Your task to perform on an android device: turn off picture-in-picture Image 0: 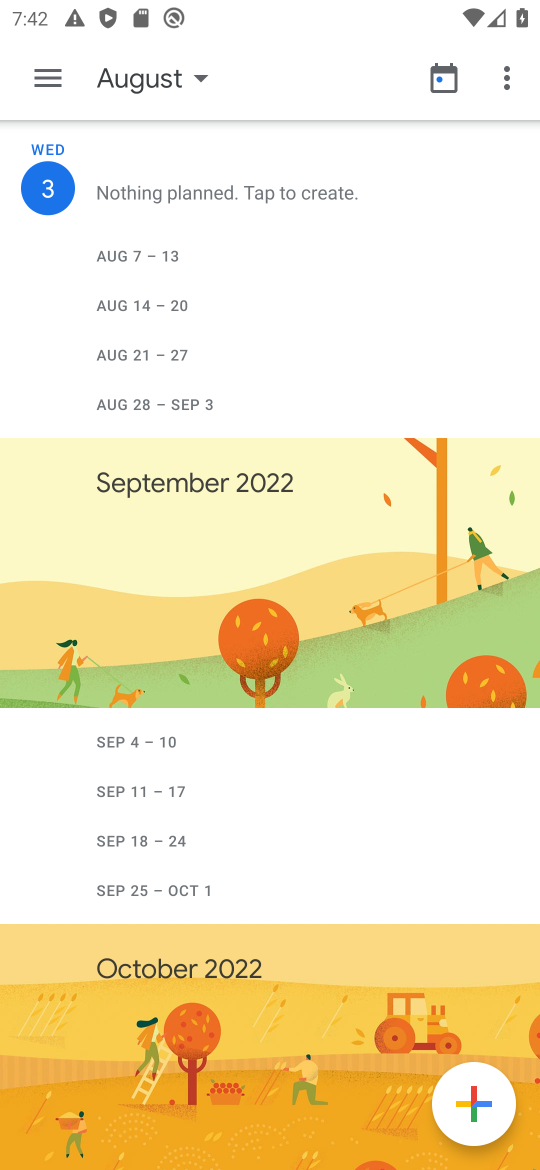
Step 0: press home button
Your task to perform on an android device: turn off picture-in-picture Image 1: 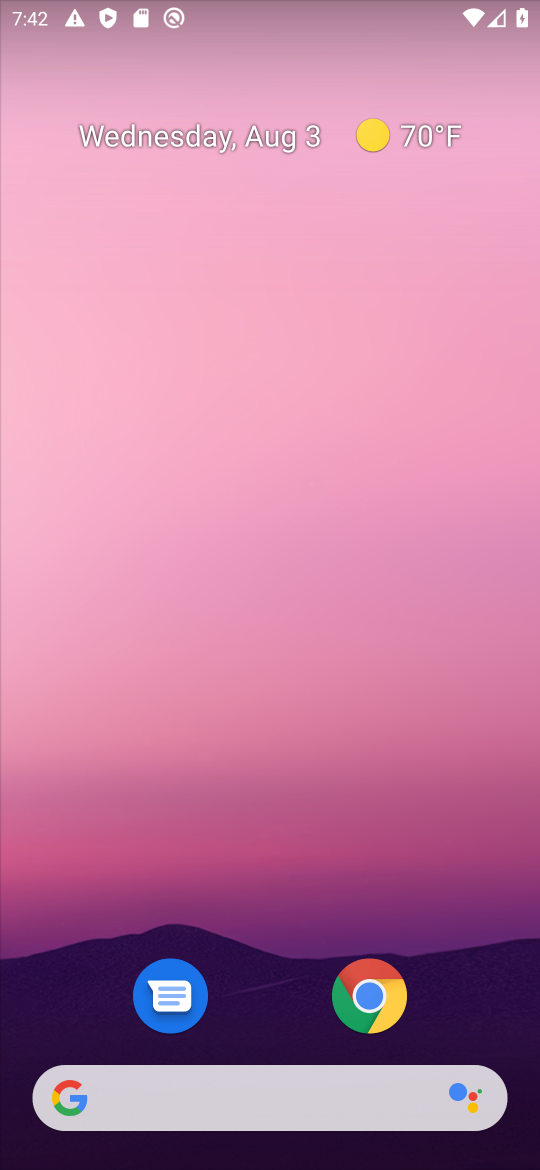
Step 1: click (378, 999)
Your task to perform on an android device: turn off picture-in-picture Image 2: 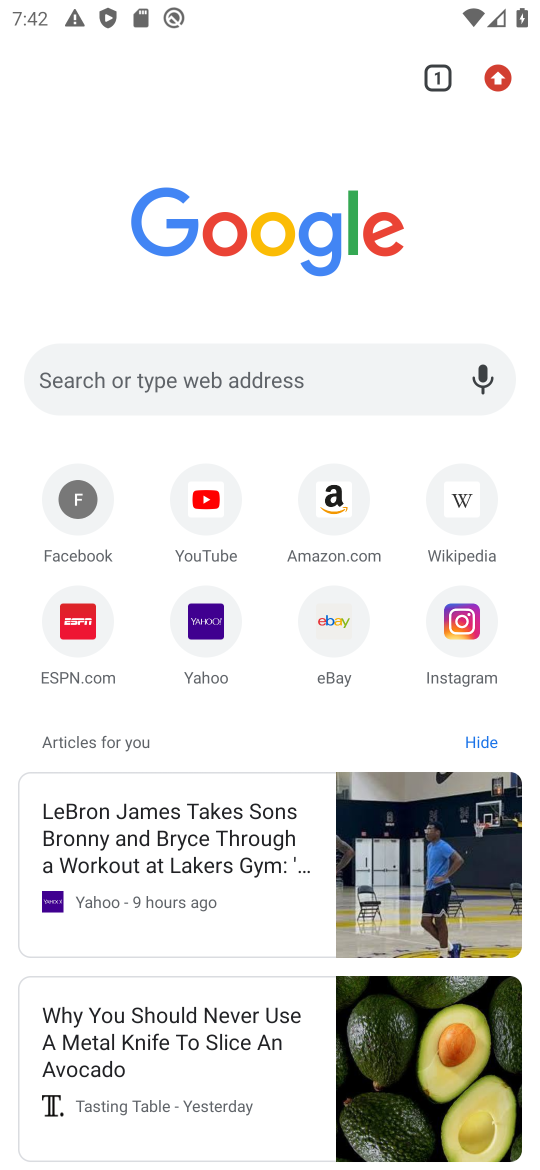
Step 2: press back button
Your task to perform on an android device: turn off picture-in-picture Image 3: 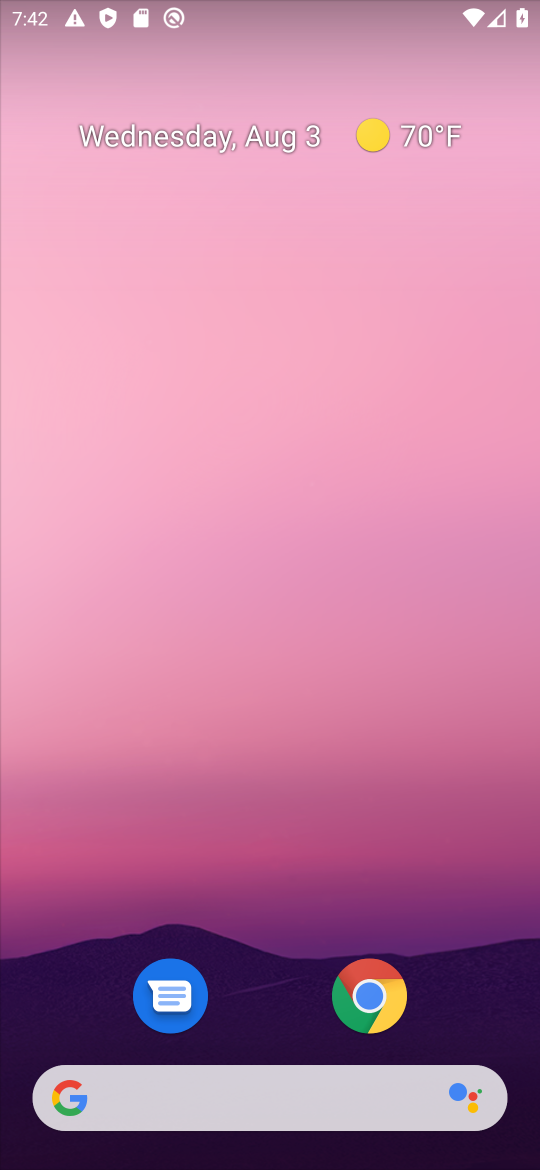
Step 3: click (369, 985)
Your task to perform on an android device: turn off picture-in-picture Image 4: 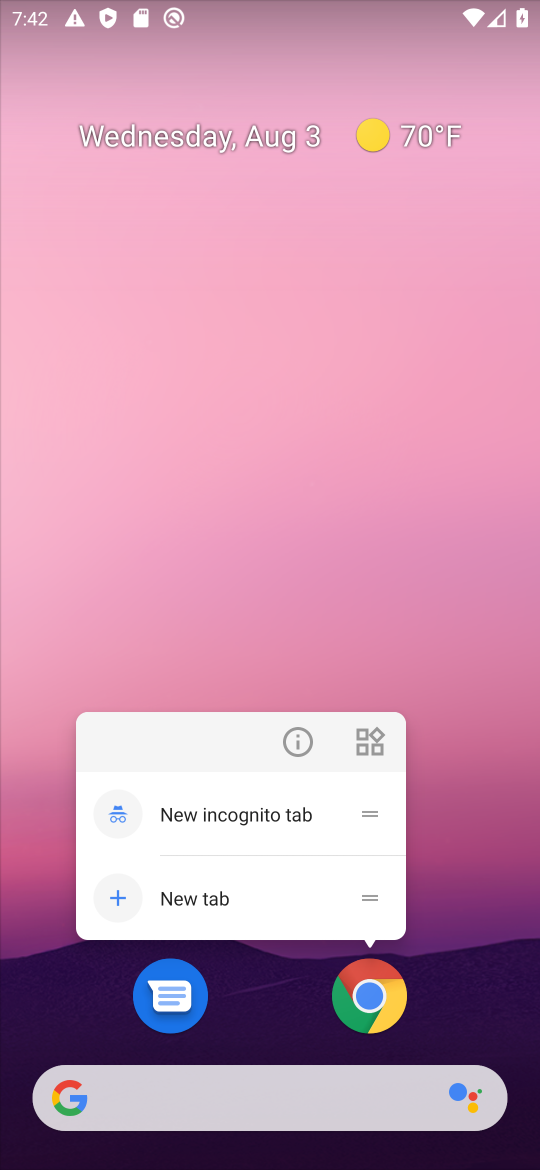
Step 4: click (295, 739)
Your task to perform on an android device: turn off picture-in-picture Image 5: 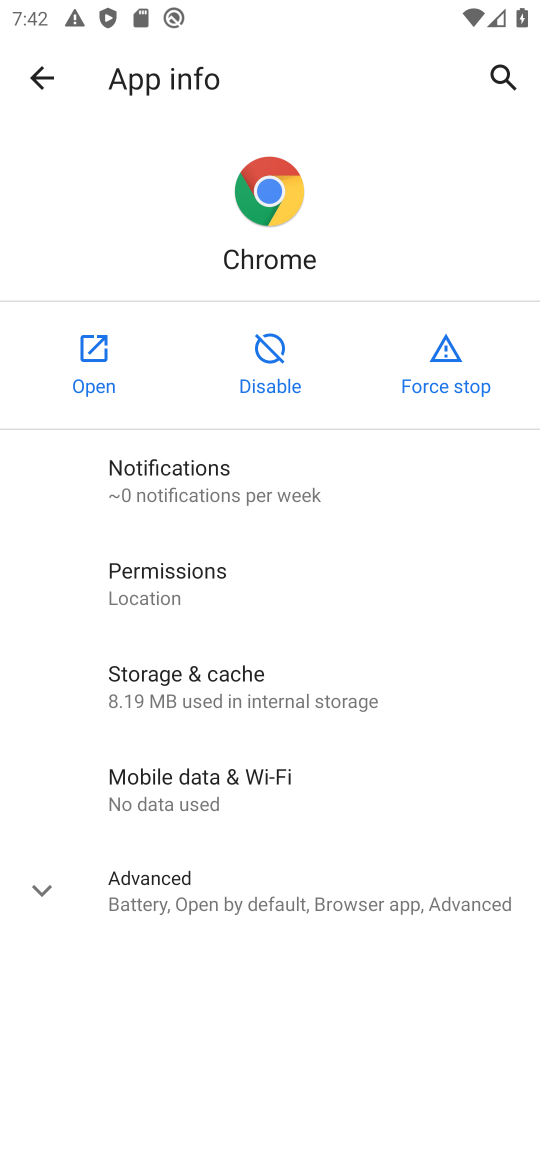
Step 5: click (43, 878)
Your task to perform on an android device: turn off picture-in-picture Image 6: 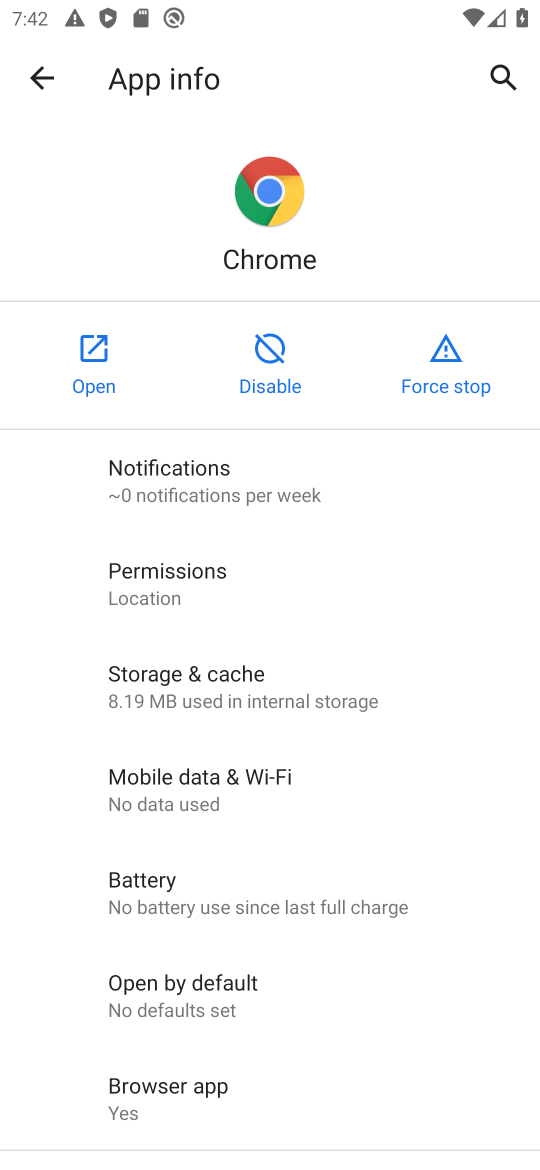
Step 6: drag from (310, 826) to (309, 543)
Your task to perform on an android device: turn off picture-in-picture Image 7: 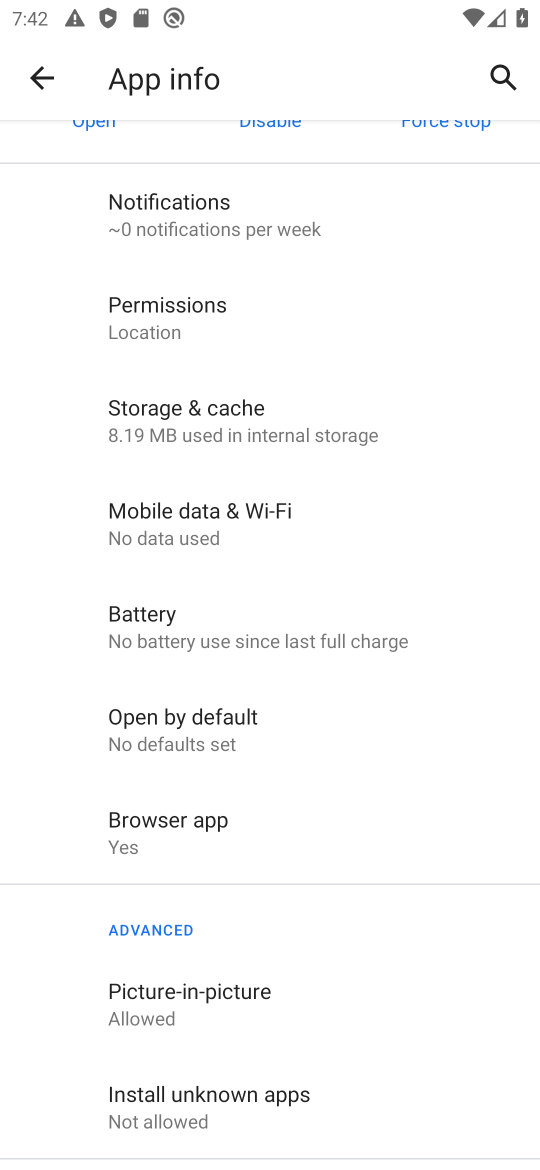
Step 7: click (247, 1004)
Your task to perform on an android device: turn off picture-in-picture Image 8: 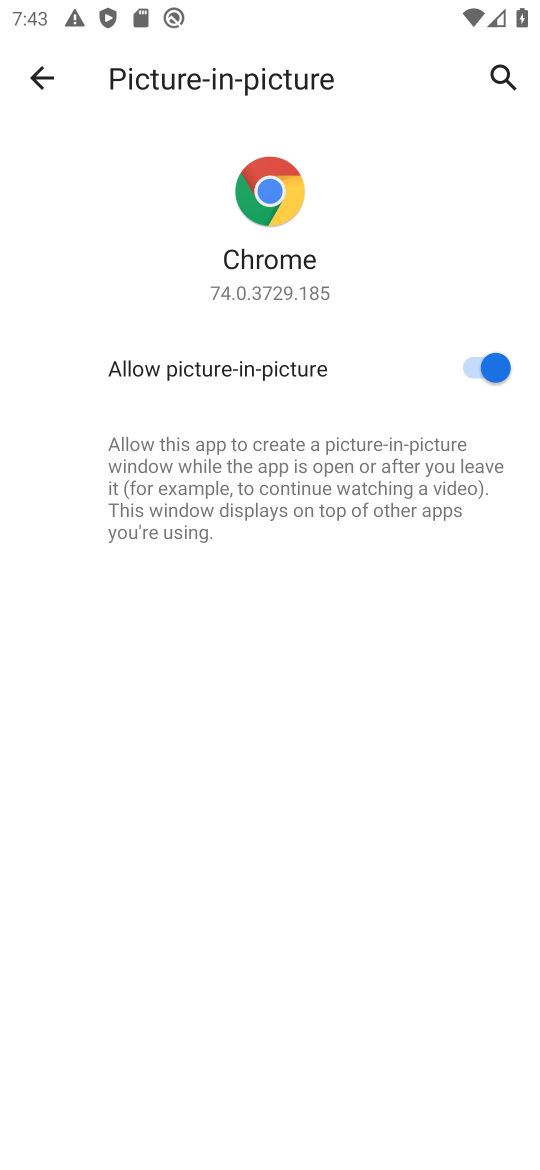
Step 8: click (484, 366)
Your task to perform on an android device: turn off picture-in-picture Image 9: 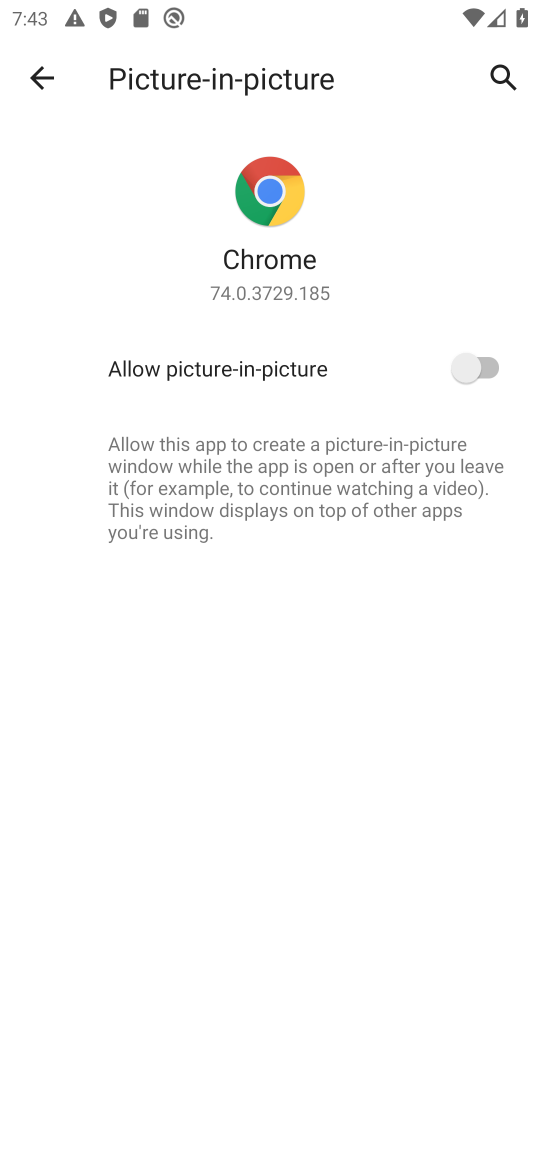
Step 9: task complete